Your task to perform on an android device: change your default location settings in chrome Image 0: 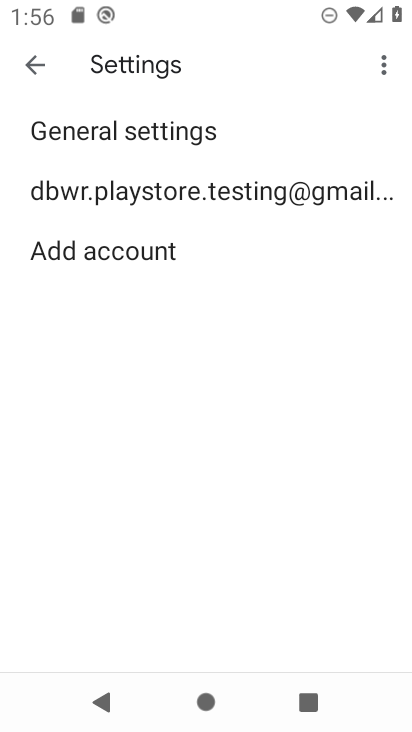
Step 0: press back button
Your task to perform on an android device: change your default location settings in chrome Image 1: 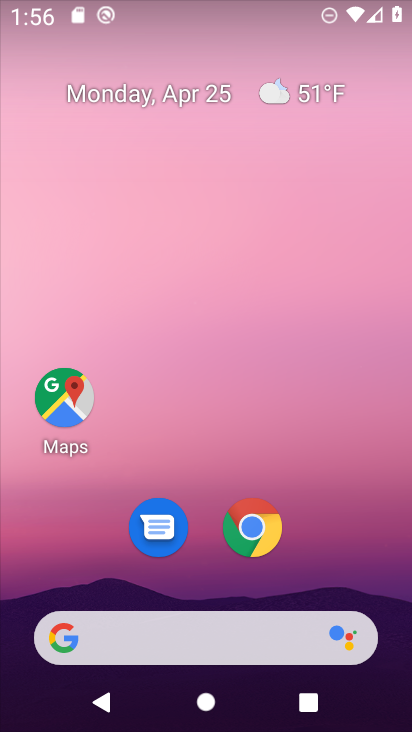
Step 1: drag from (375, 538) to (291, 17)
Your task to perform on an android device: change your default location settings in chrome Image 2: 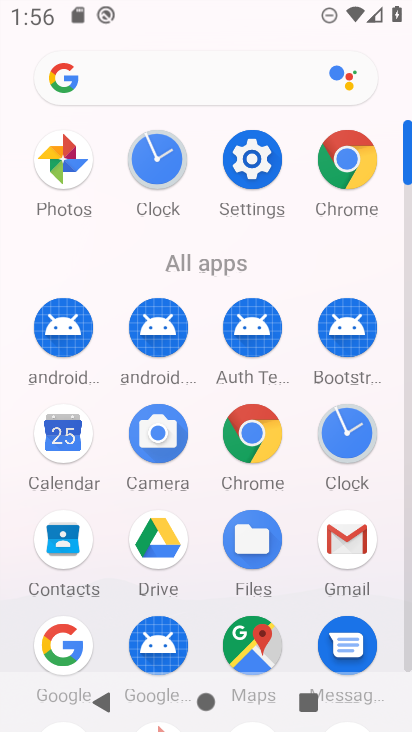
Step 2: drag from (4, 551) to (10, 223)
Your task to perform on an android device: change your default location settings in chrome Image 3: 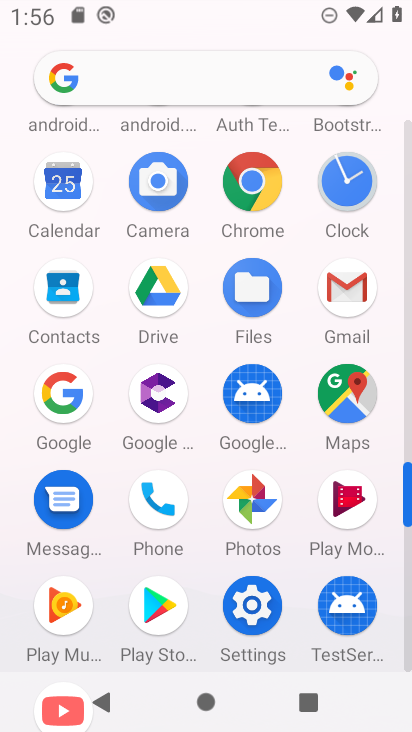
Step 3: click (251, 183)
Your task to perform on an android device: change your default location settings in chrome Image 4: 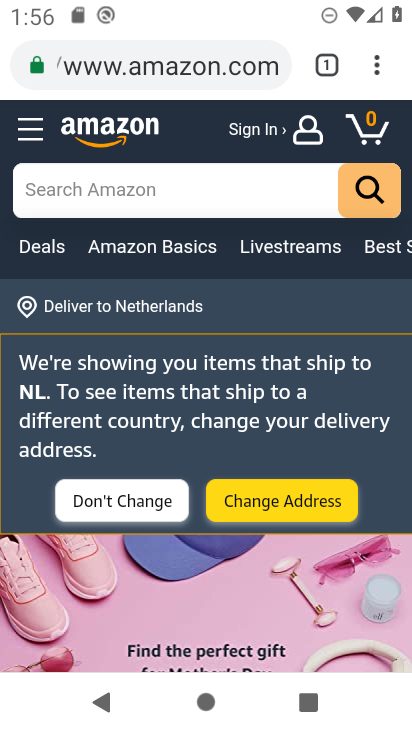
Step 4: drag from (379, 70) to (161, 576)
Your task to perform on an android device: change your default location settings in chrome Image 5: 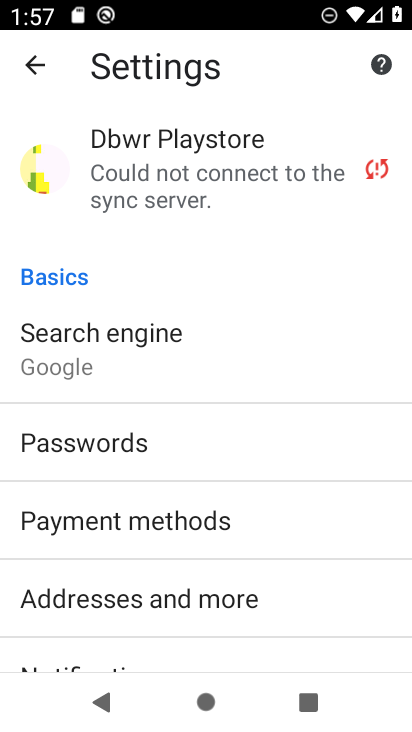
Step 5: drag from (229, 587) to (243, 369)
Your task to perform on an android device: change your default location settings in chrome Image 6: 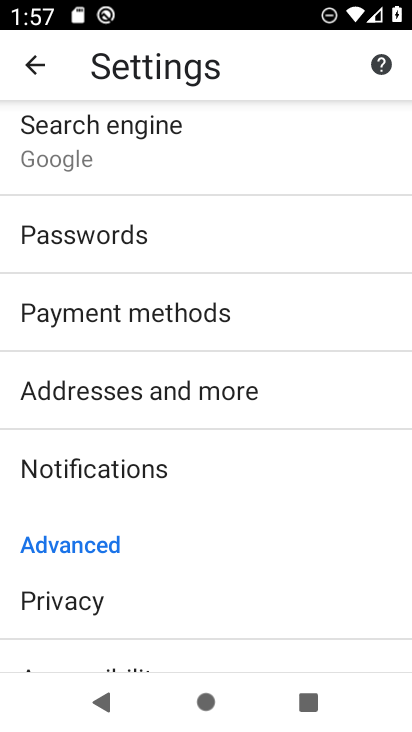
Step 6: drag from (239, 522) to (235, 79)
Your task to perform on an android device: change your default location settings in chrome Image 7: 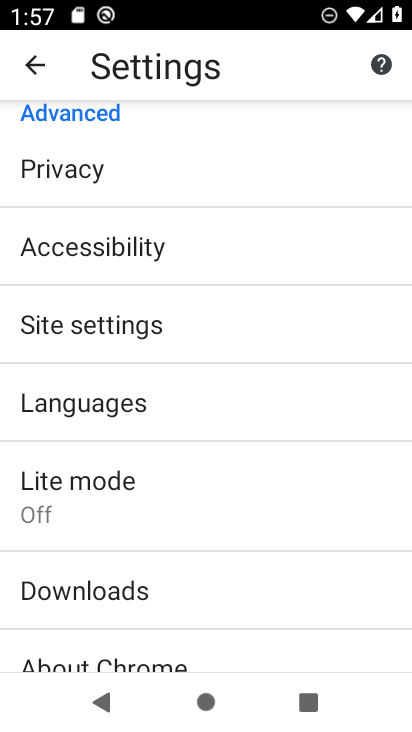
Step 7: click (284, 152)
Your task to perform on an android device: change your default location settings in chrome Image 8: 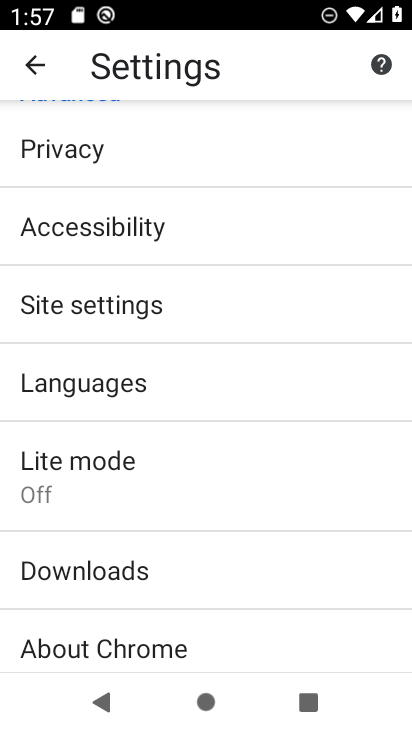
Step 8: drag from (257, 592) to (273, 235)
Your task to perform on an android device: change your default location settings in chrome Image 9: 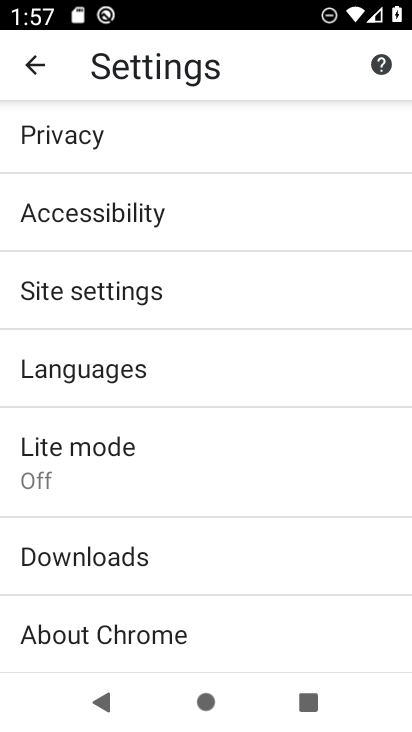
Step 9: drag from (225, 592) to (275, 138)
Your task to perform on an android device: change your default location settings in chrome Image 10: 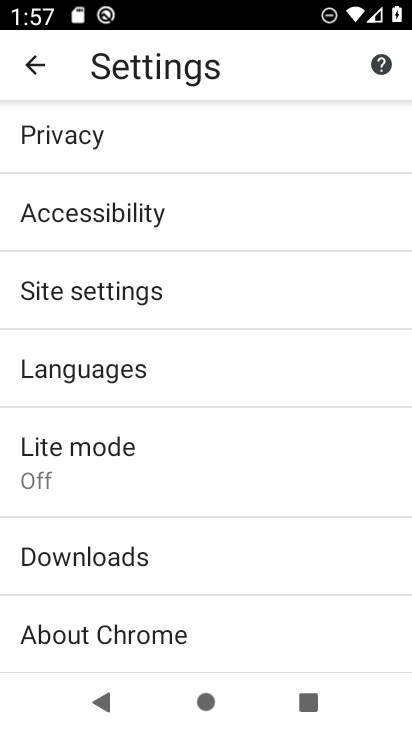
Step 10: click (160, 290)
Your task to perform on an android device: change your default location settings in chrome Image 11: 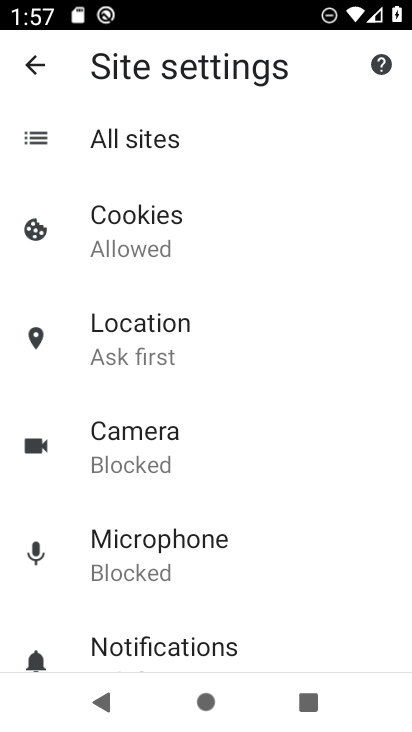
Step 11: click (186, 311)
Your task to perform on an android device: change your default location settings in chrome Image 12: 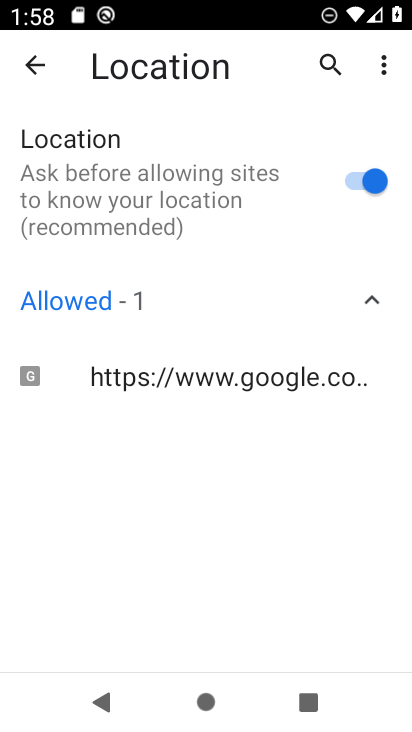
Step 12: click (363, 177)
Your task to perform on an android device: change your default location settings in chrome Image 13: 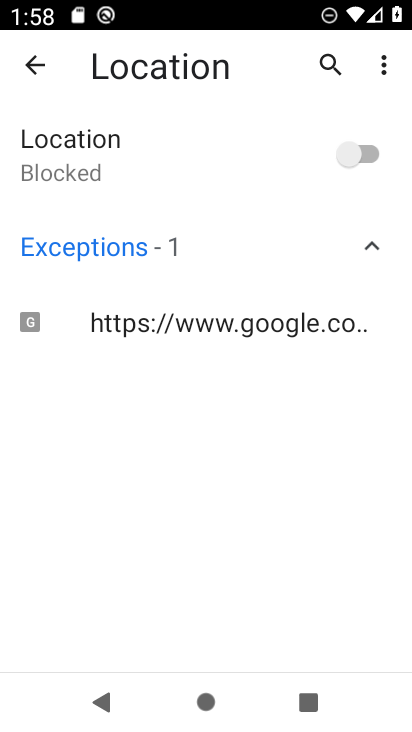
Step 13: task complete